Your task to perform on an android device: open app "NewsBreak: Local News & Alerts" (install if not already installed) and enter user name: "switch@outlook.com" and password: "fabrics" Image 0: 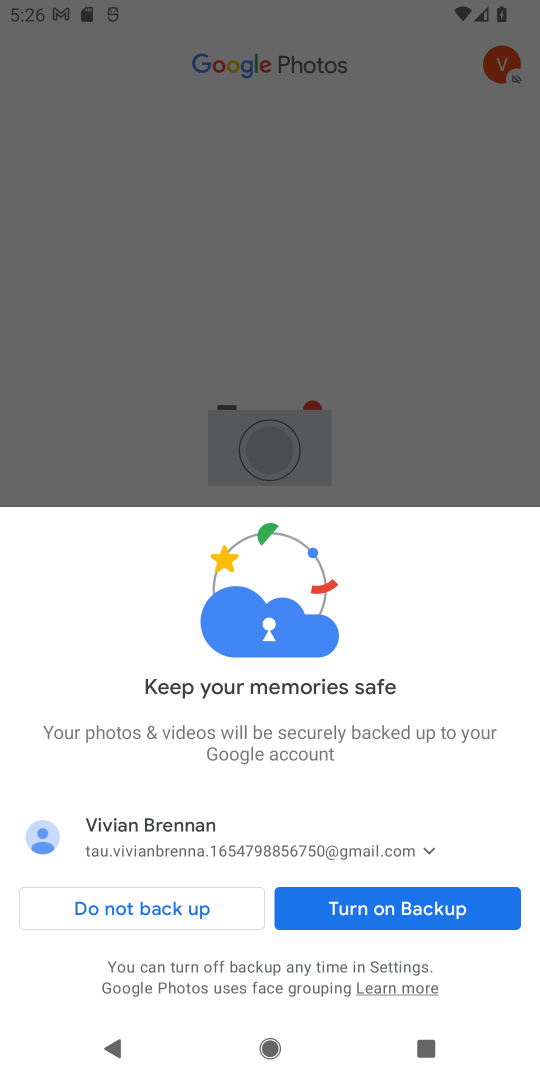
Step 0: press home button
Your task to perform on an android device: open app "NewsBreak: Local News & Alerts" (install if not already installed) and enter user name: "switch@outlook.com" and password: "fabrics" Image 1: 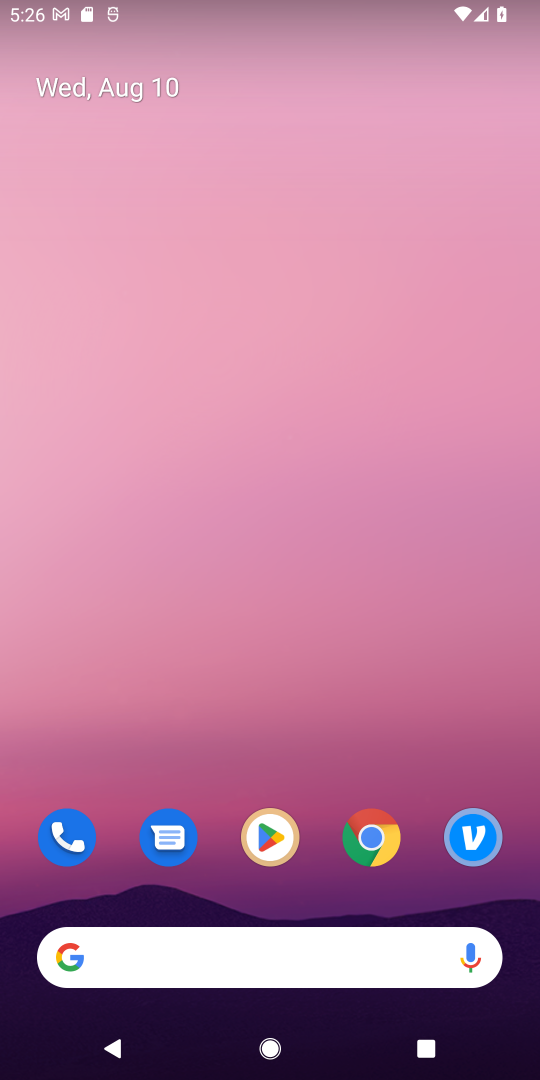
Step 1: click (268, 830)
Your task to perform on an android device: open app "NewsBreak: Local News & Alerts" (install if not already installed) and enter user name: "switch@outlook.com" and password: "fabrics" Image 2: 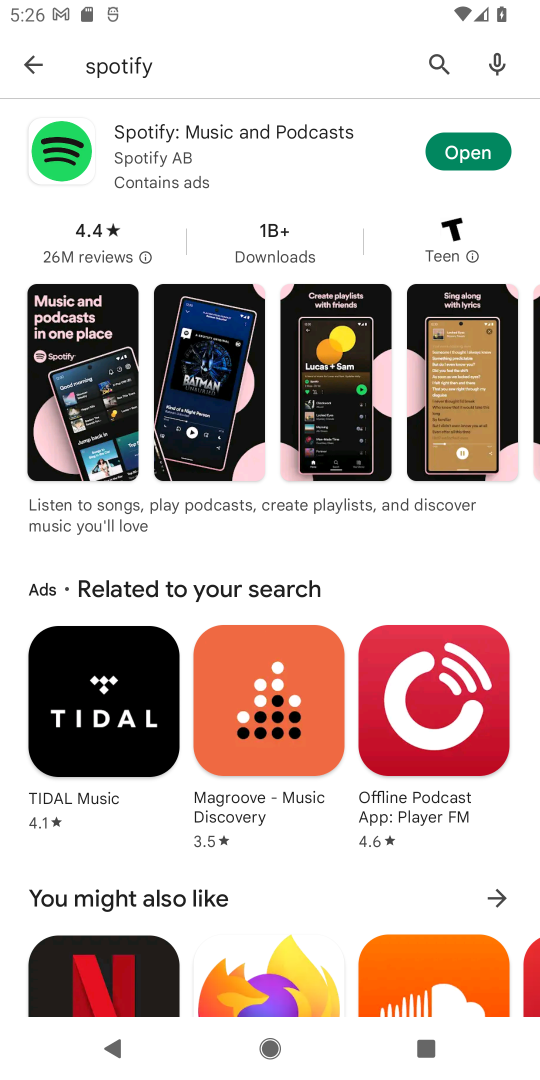
Step 2: click (439, 66)
Your task to perform on an android device: open app "NewsBreak: Local News & Alerts" (install if not already installed) and enter user name: "switch@outlook.com" and password: "fabrics" Image 3: 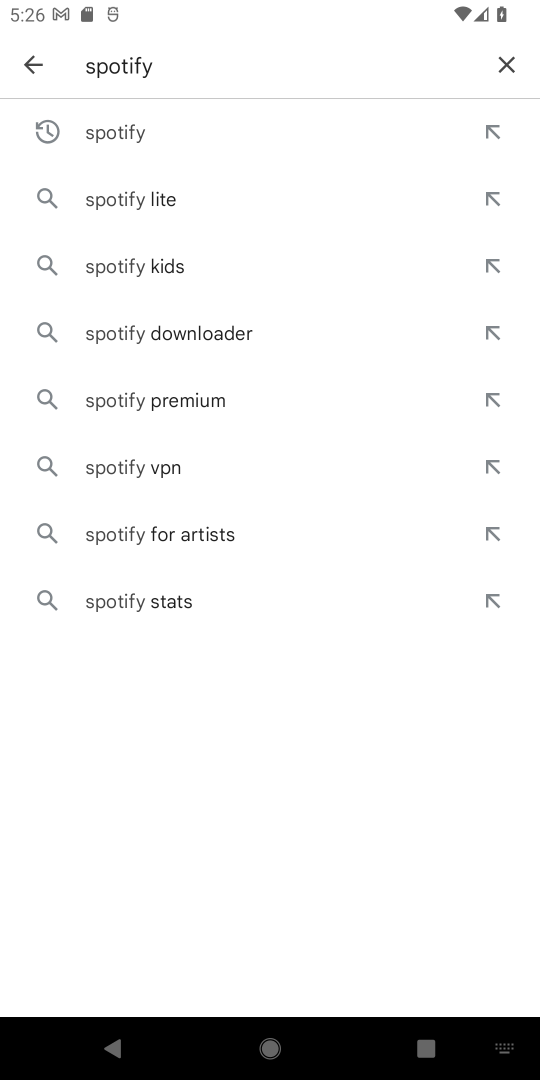
Step 3: click (509, 59)
Your task to perform on an android device: open app "NewsBreak: Local News & Alerts" (install if not already installed) and enter user name: "switch@outlook.com" and password: "fabrics" Image 4: 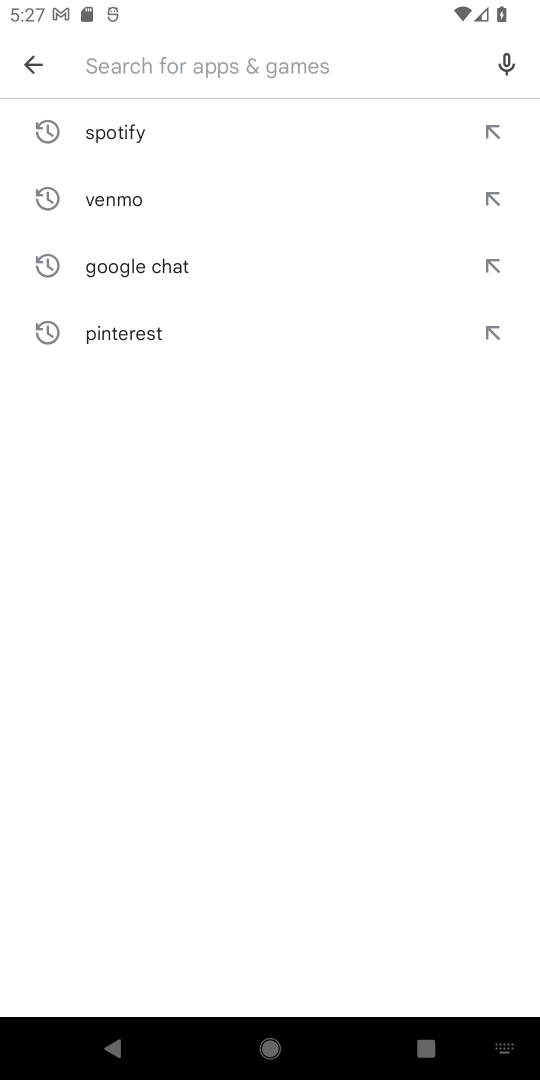
Step 4: type "NewsBreak: Local News & Alerts"
Your task to perform on an android device: open app "NewsBreak: Local News & Alerts" (install if not already installed) and enter user name: "switch@outlook.com" and password: "fabrics" Image 5: 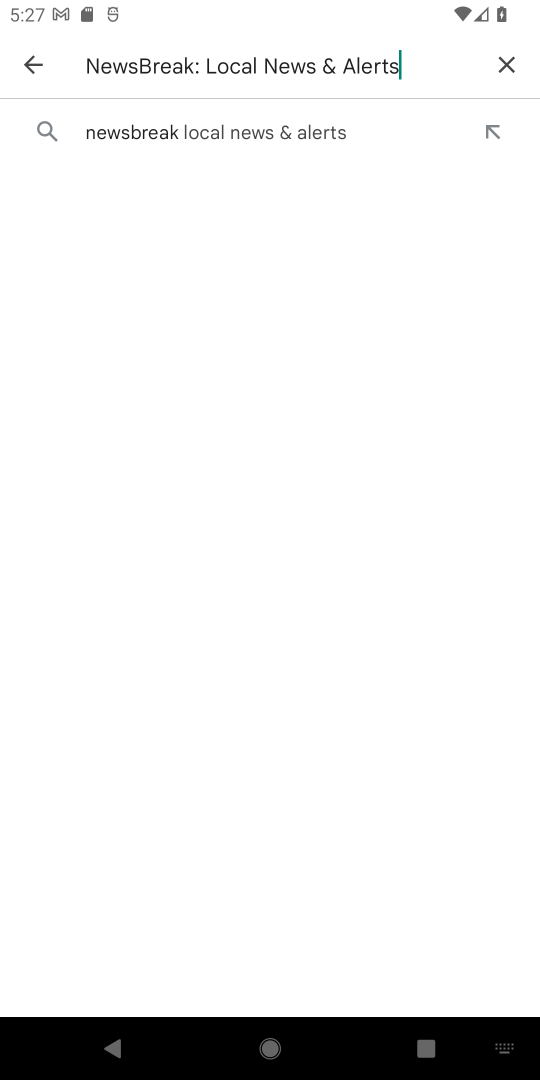
Step 5: click (208, 134)
Your task to perform on an android device: open app "NewsBreak: Local News & Alerts" (install if not already installed) and enter user name: "switch@outlook.com" and password: "fabrics" Image 6: 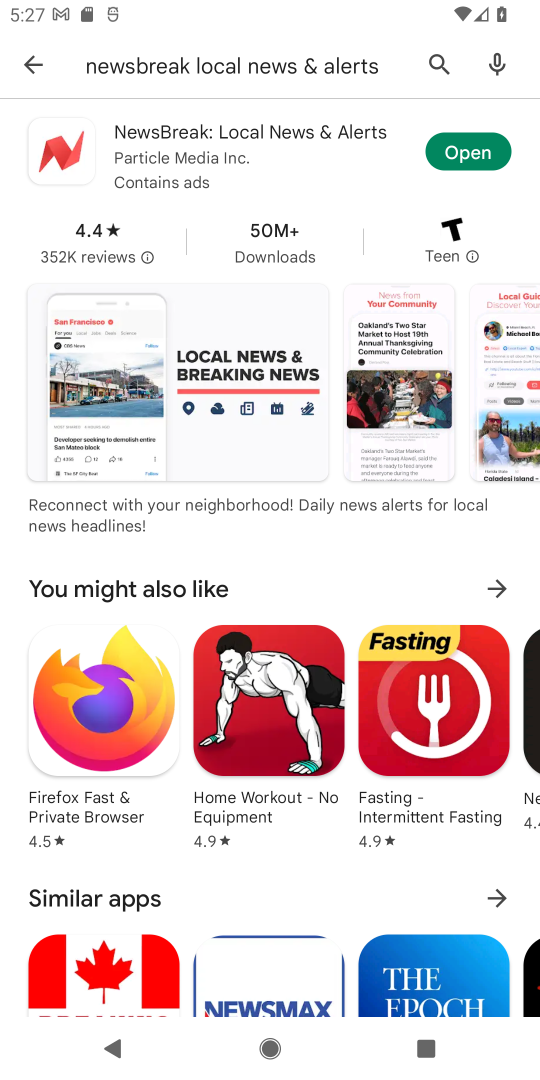
Step 6: click (487, 154)
Your task to perform on an android device: open app "NewsBreak: Local News & Alerts" (install if not already installed) and enter user name: "switch@outlook.com" and password: "fabrics" Image 7: 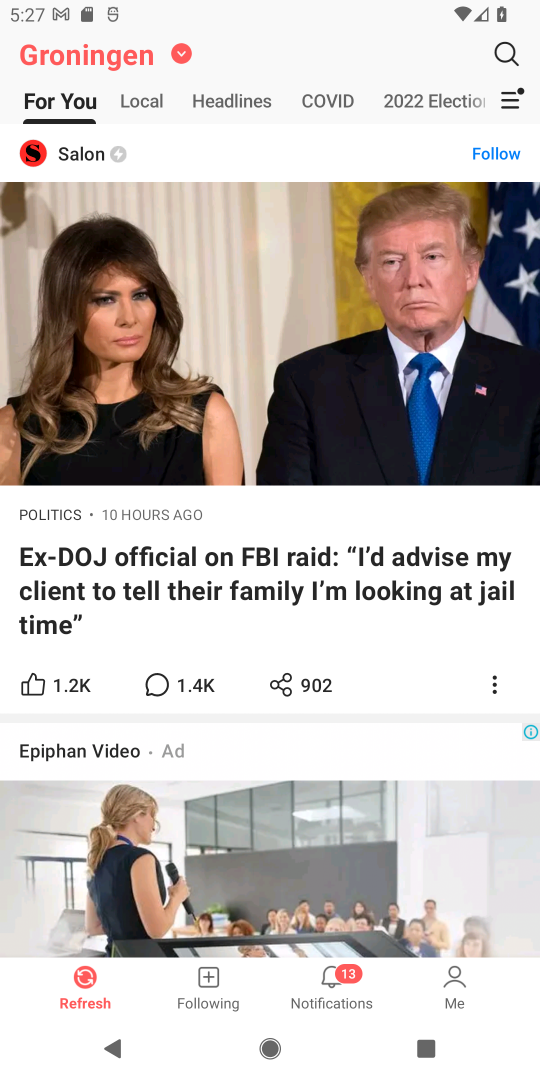
Step 7: task complete